Your task to perform on an android device: Open Yahoo.com Image 0: 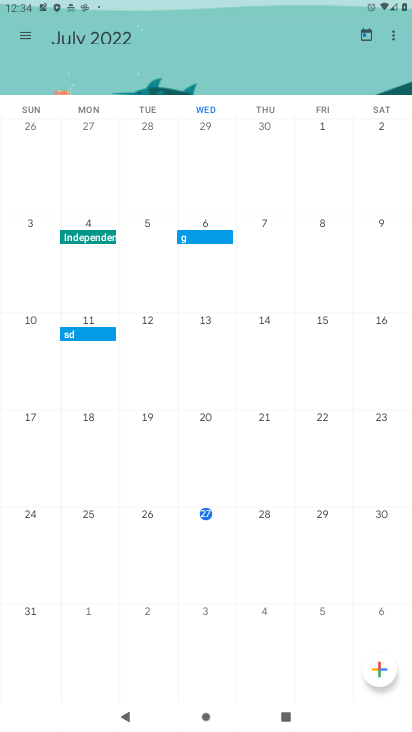
Step 0: press home button
Your task to perform on an android device: Open Yahoo.com Image 1: 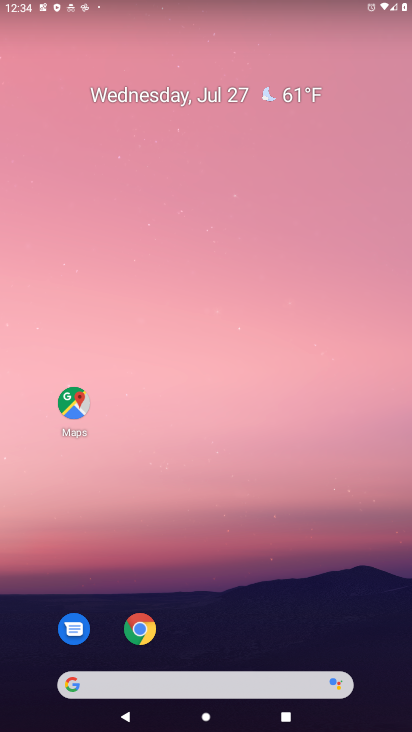
Step 1: click (158, 630)
Your task to perform on an android device: Open Yahoo.com Image 2: 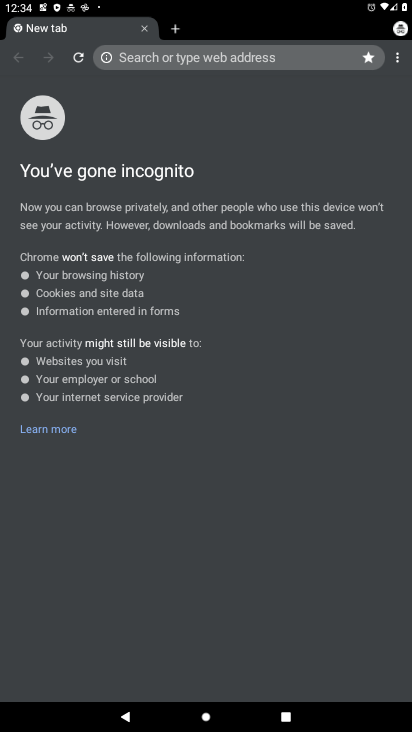
Step 2: click (218, 65)
Your task to perform on an android device: Open Yahoo.com Image 3: 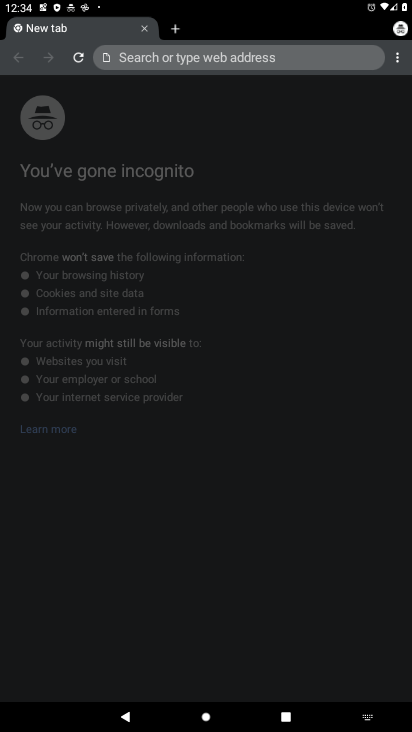
Step 3: type "yahoo.com"
Your task to perform on an android device: Open Yahoo.com Image 4: 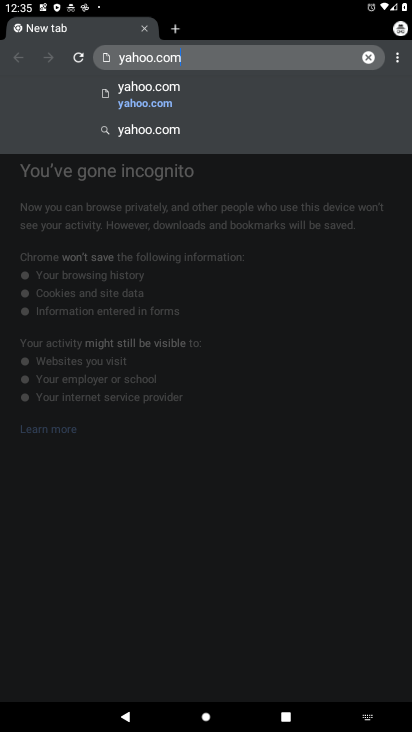
Step 4: click (190, 79)
Your task to perform on an android device: Open Yahoo.com Image 5: 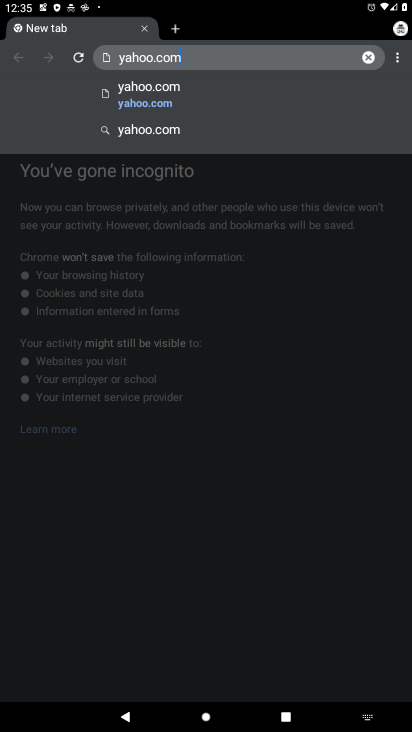
Step 5: task complete